Your task to perform on an android device: What's the news this morning? Image 0: 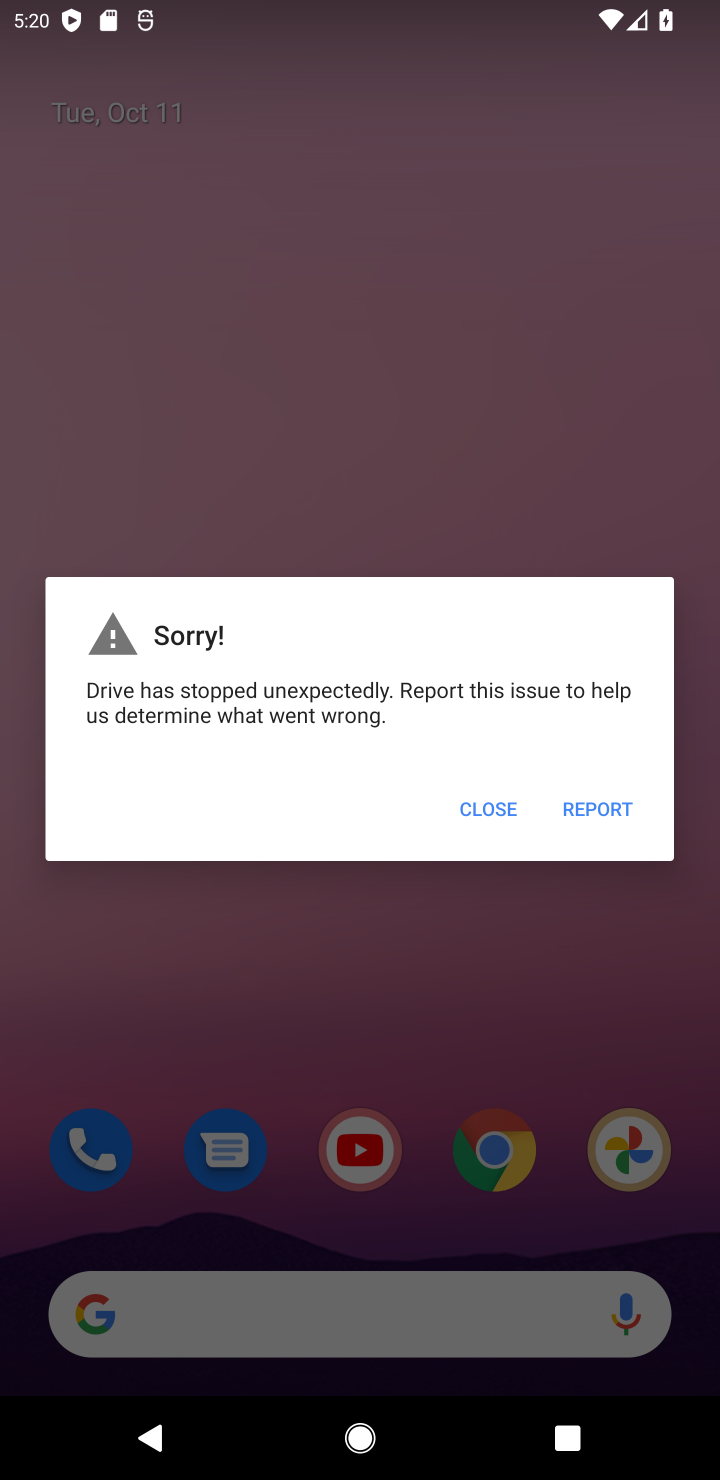
Step 0: press home button
Your task to perform on an android device: What's the news this morning? Image 1: 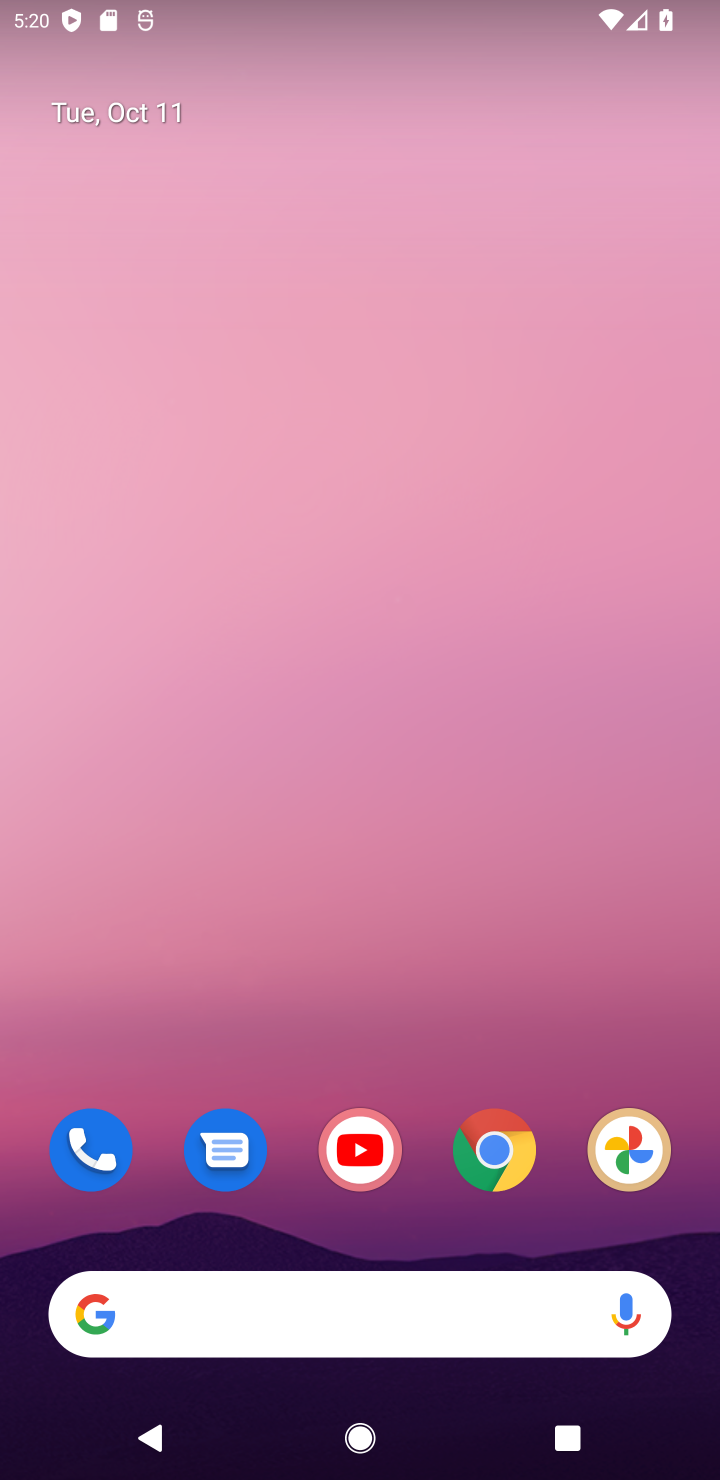
Step 1: click (498, 1168)
Your task to perform on an android device: What's the news this morning? Image 2: 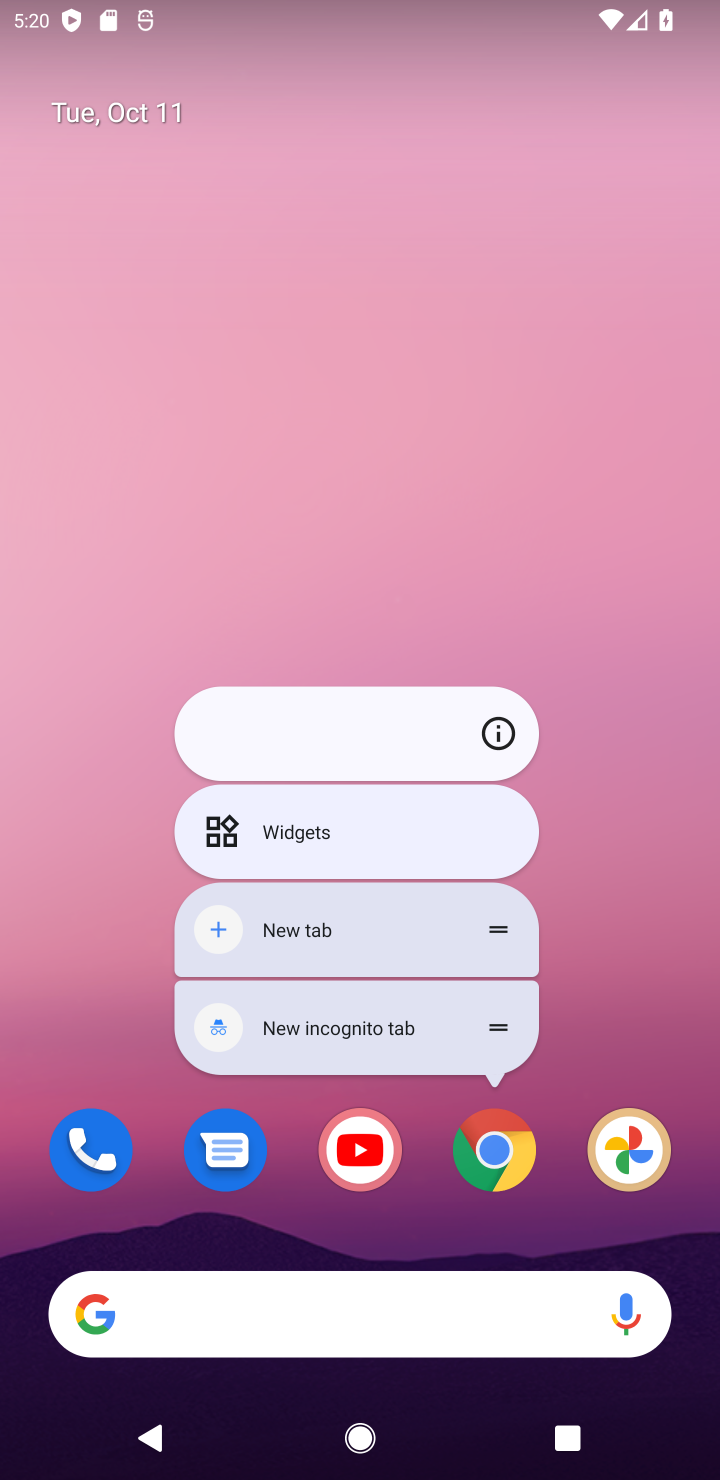
Step 2: click (498, 1159)
Your task to perform on an android device: What's the news this morning? Image 3: 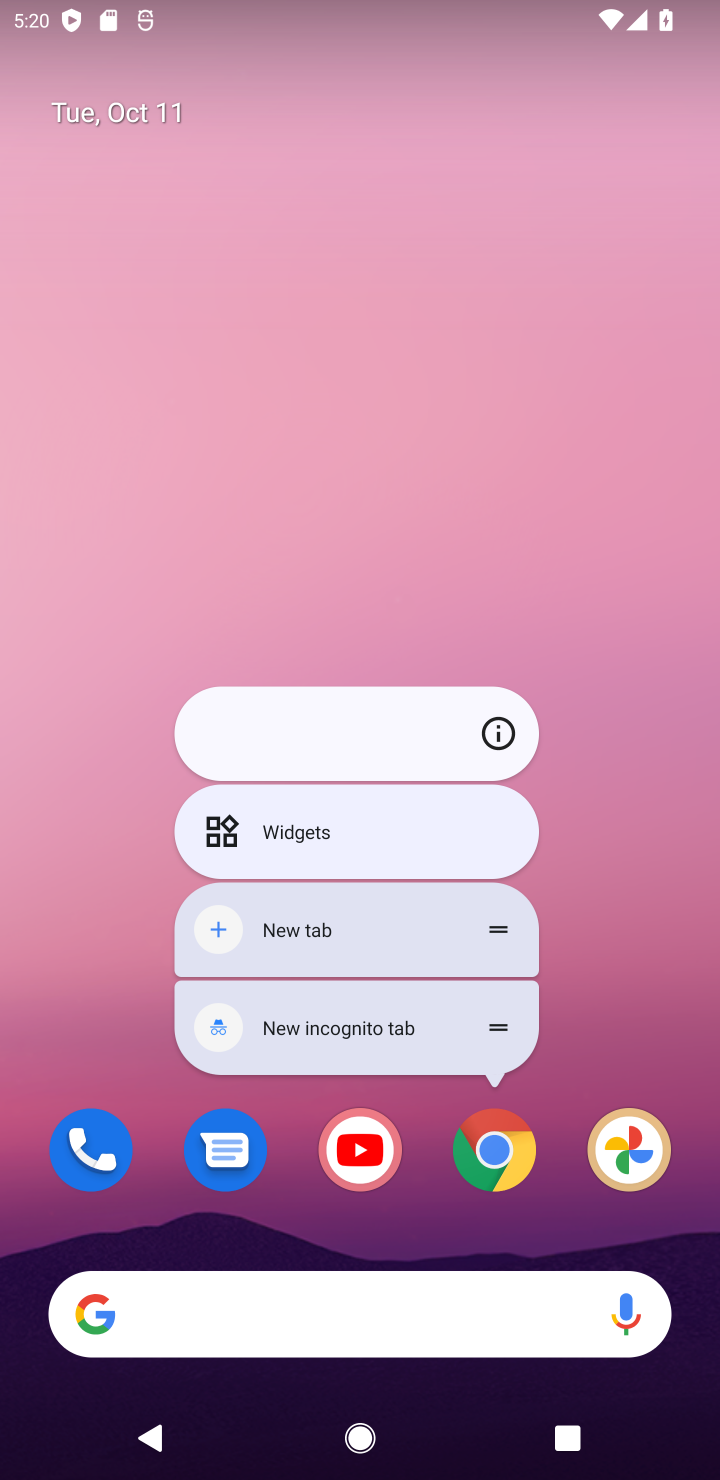
Step 3: click (496, 1151)
Your task to perform on an android device: What's the news this morning? Image 4: 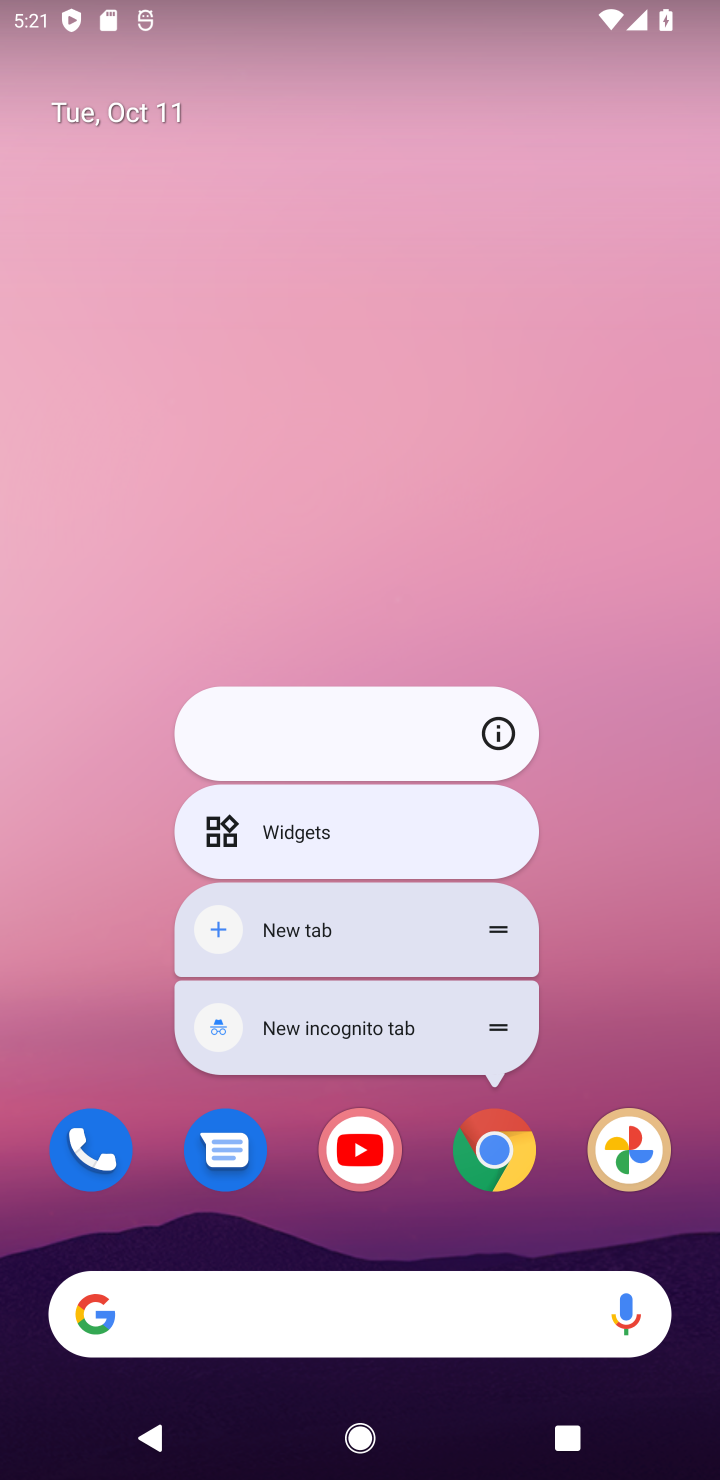
Step 4: click (496, 1151)
Your task to perform on an android device: What's the news this morning? Image 5: 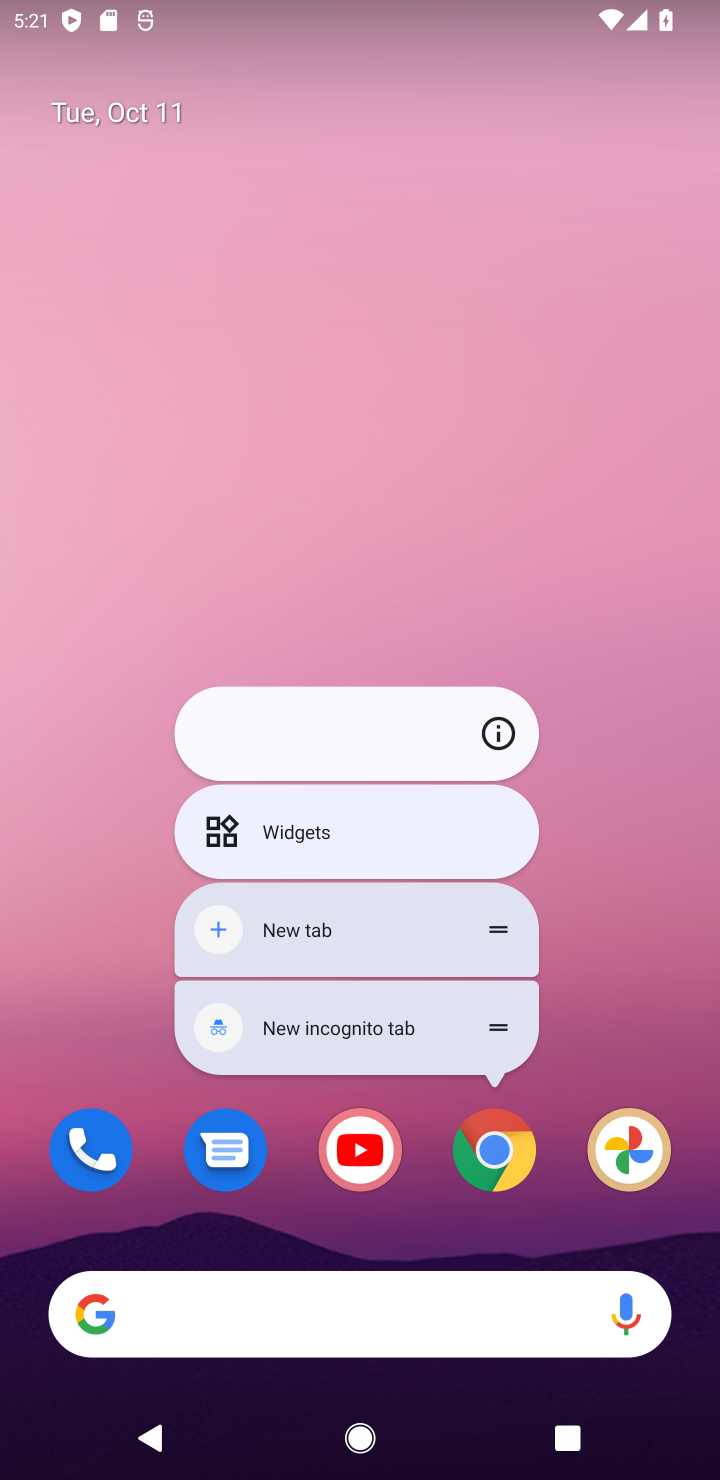
Step 5: click (494, 1142)
Your task to perform on an android device: What's the news this morning? Image 6: 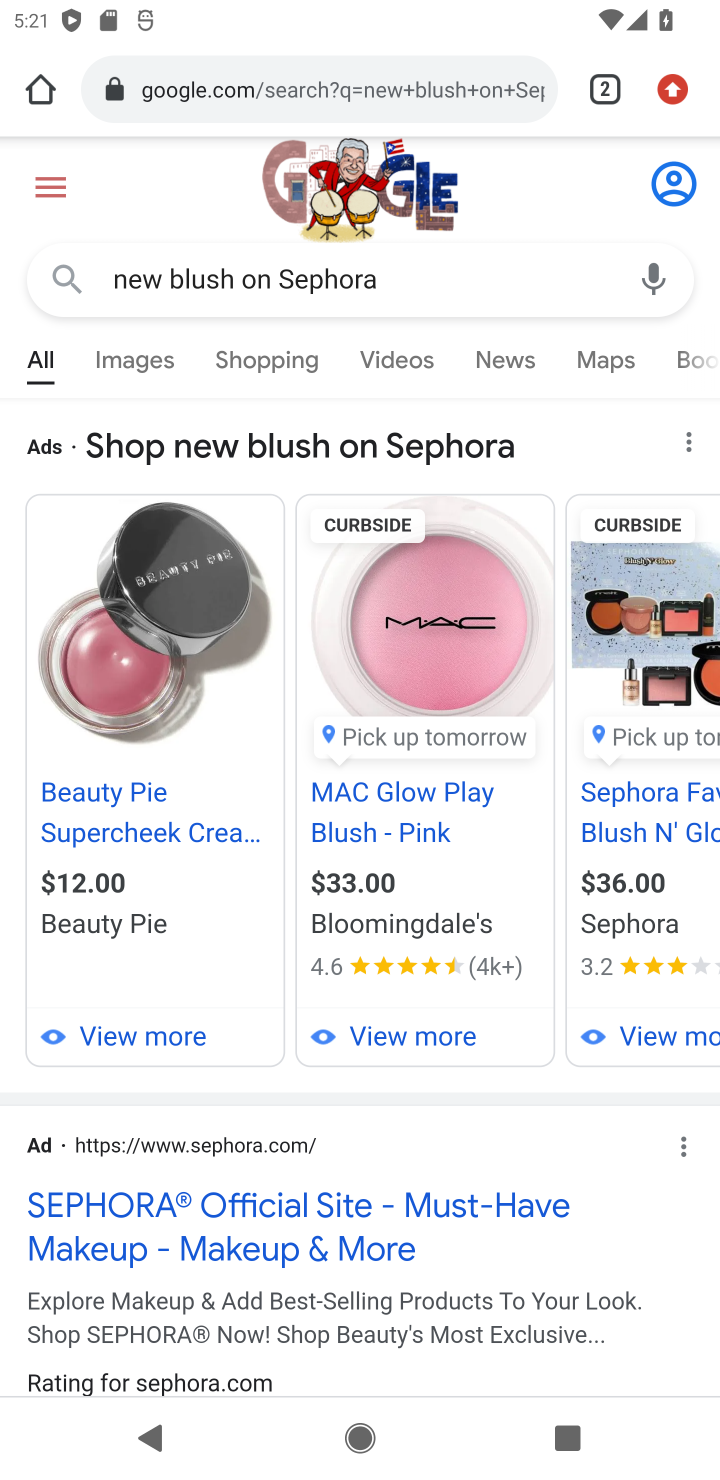
Step 6: click (332, 99)
Your task to perform on an android device: What's the news this morning? Image 7: 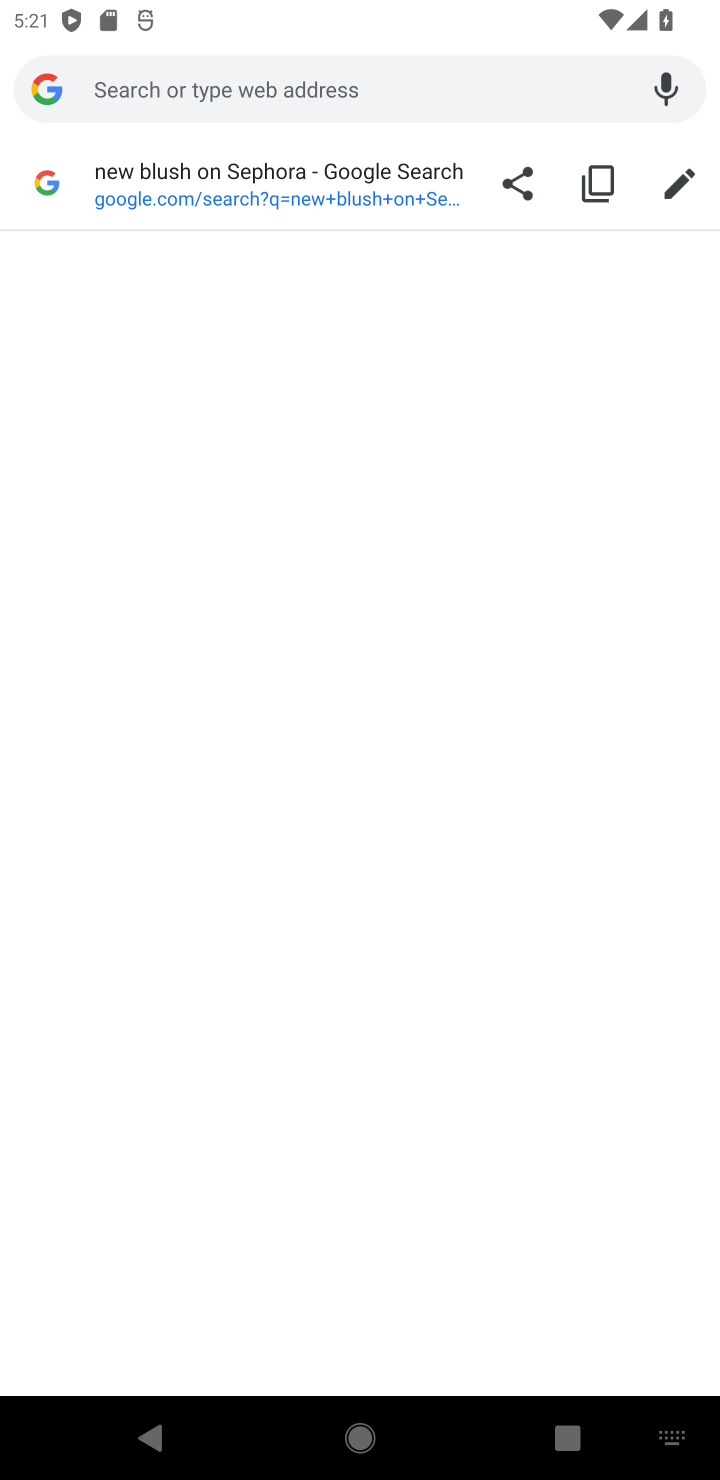
Step 7: type "morning news"
Your task to perform on an android device: What's the news this morning? Image 8: 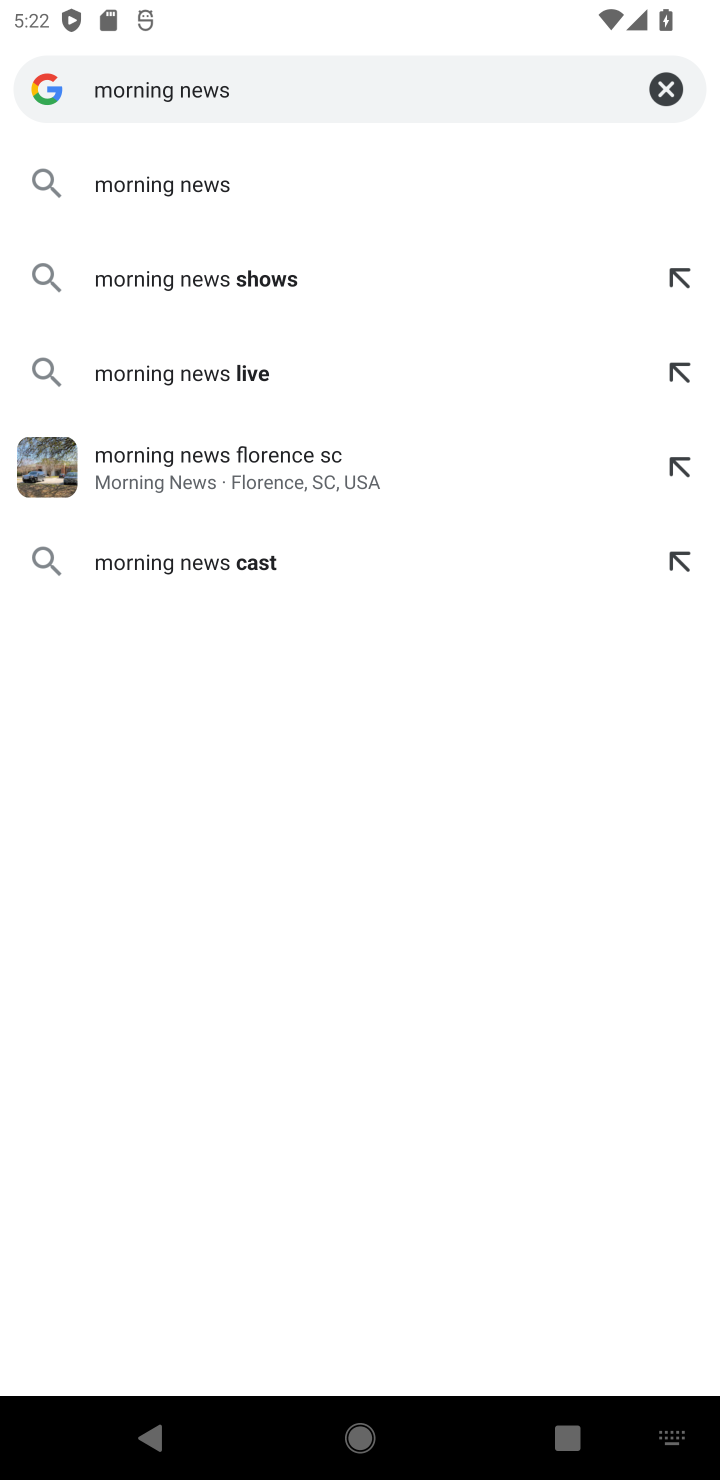
Step 8: click (161, 182)
Your task to perform on an android device: What's the news this morning? Image 9: 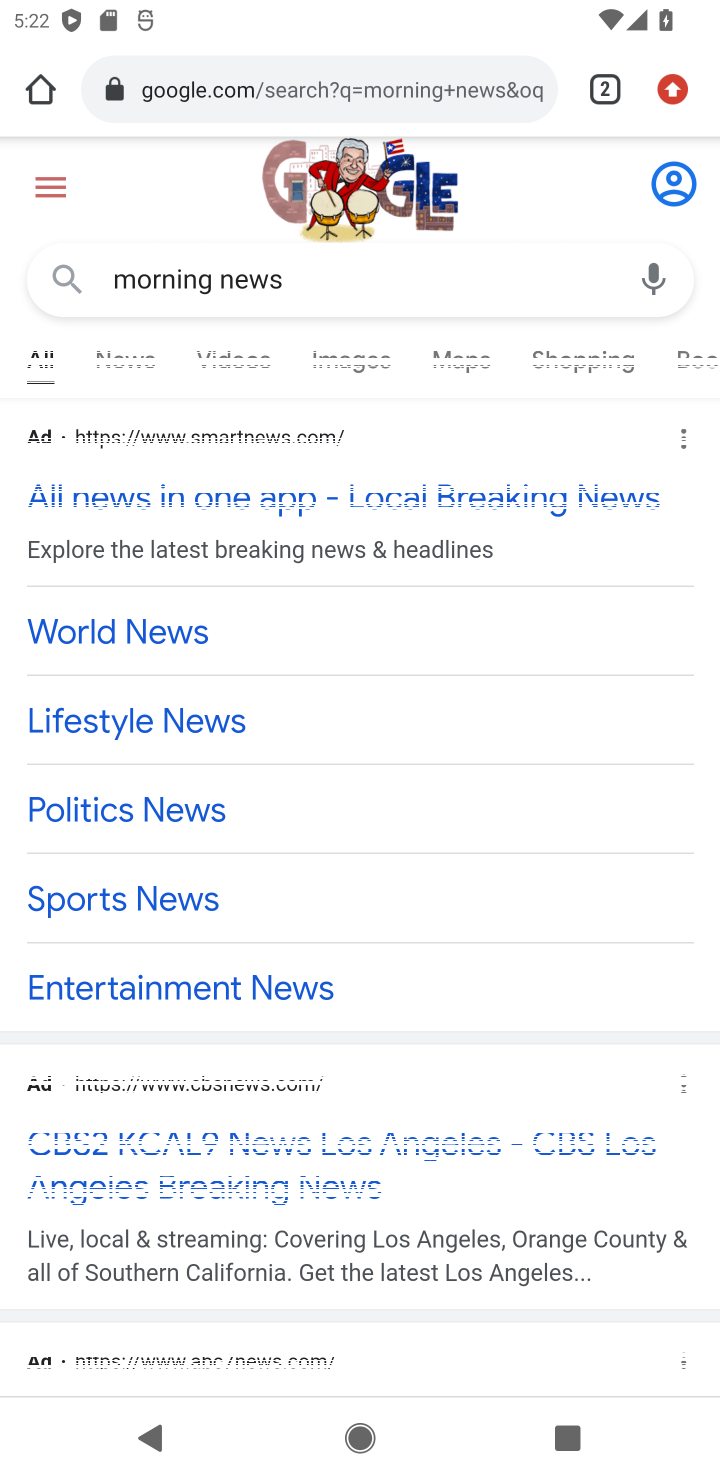
Step 9: click (127, 360)
Your task to perform on an android device: What's the news this morning? Image 10: 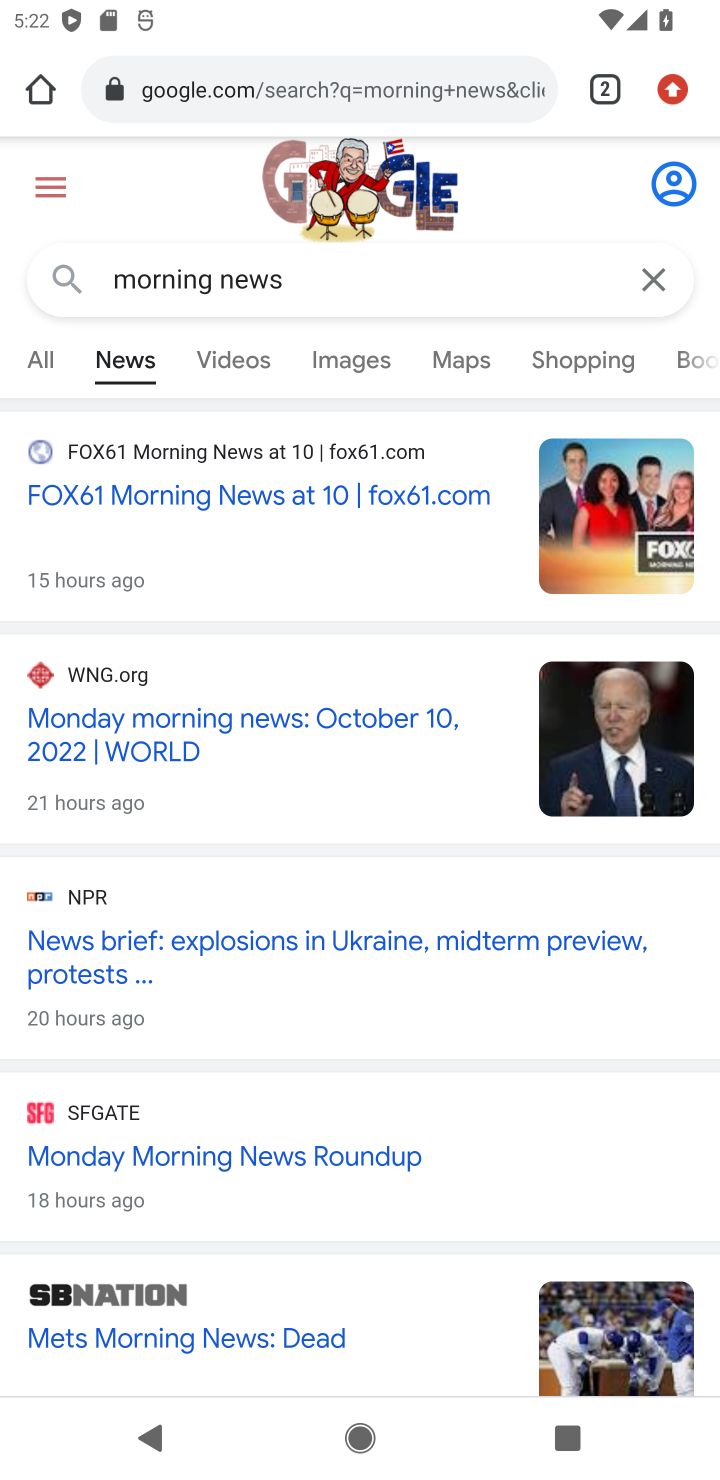
Step 10: click (164, 494)
Your task to perform on an android device: What's the news this morning? Image 11: 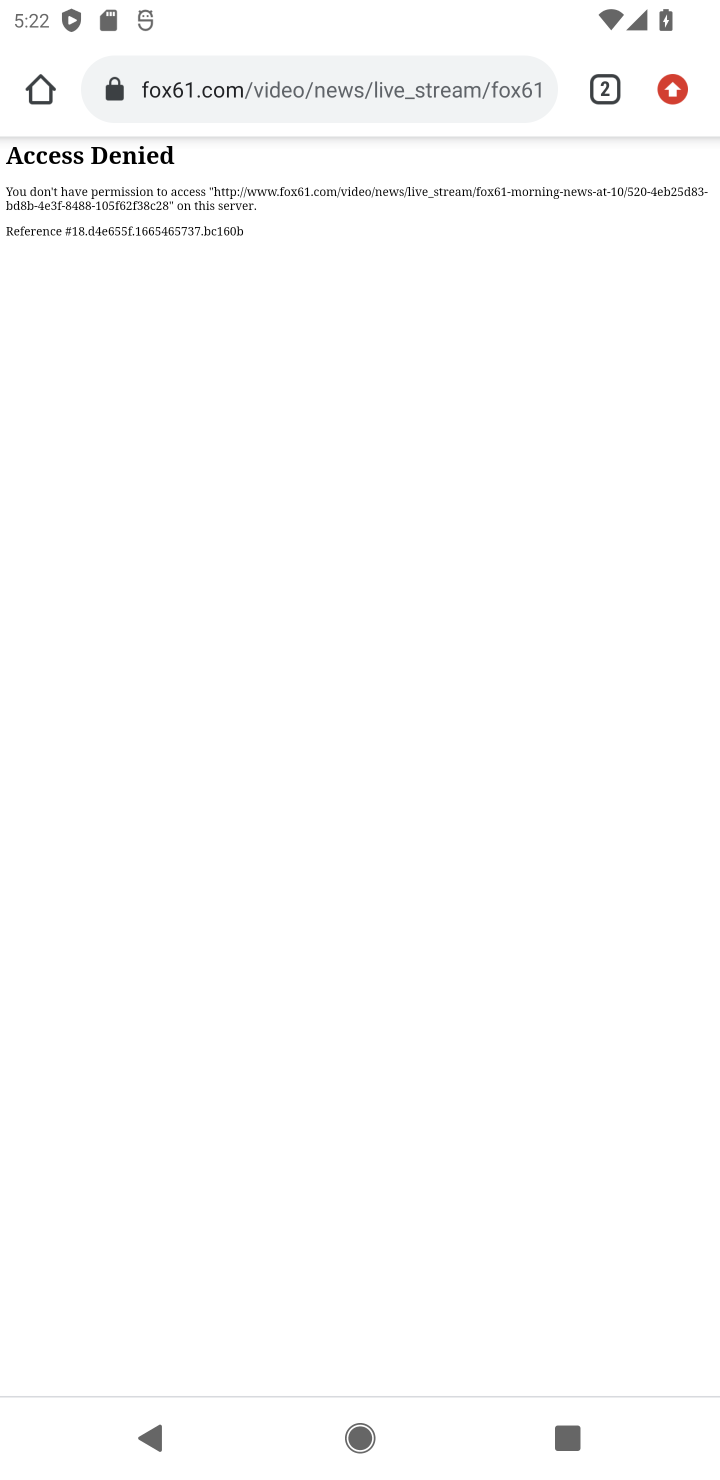
Step 11: press back button
Your task to perform on an android device: What's the news this morning? Image 12: 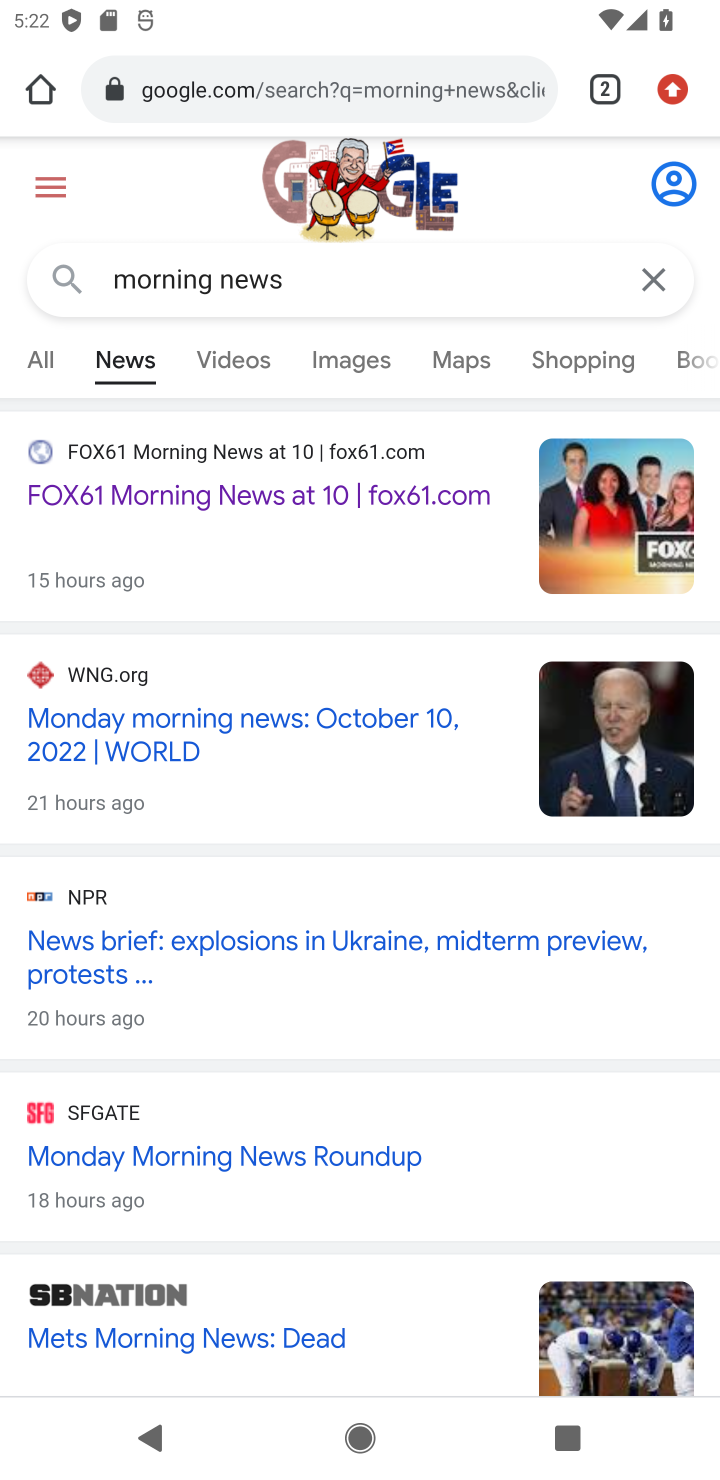
Step 12: click (132, 733)
Your task to perform on an android device: What's the news this morning? Image 13: 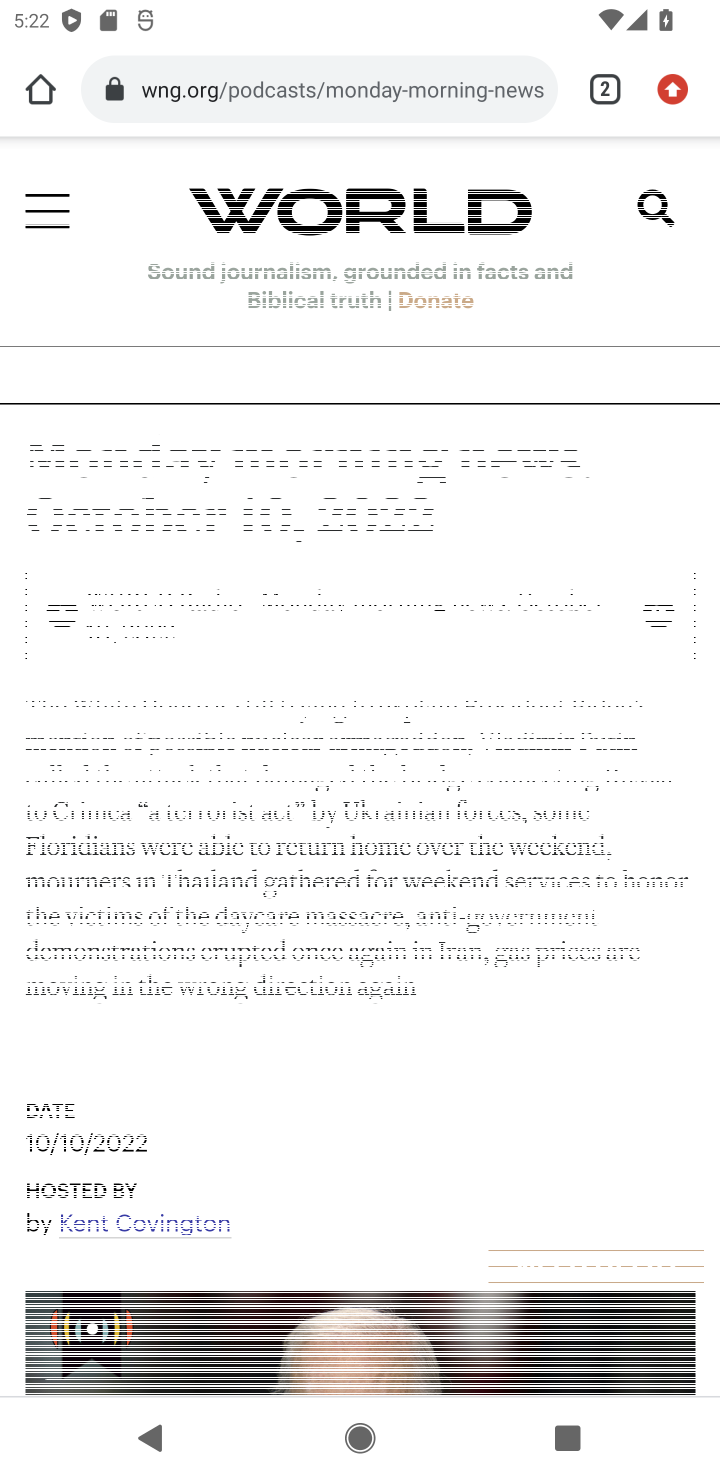
Step 13: task complete